Your task to perform on an android device: Open sound settings Image 0: 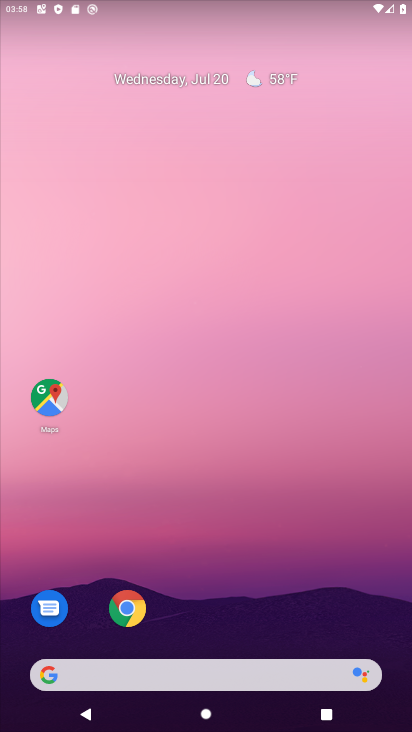
Step 0: drag from (275, 624) to (273, 34)
Your task to perform on an android device: Open sound settings Image 1: 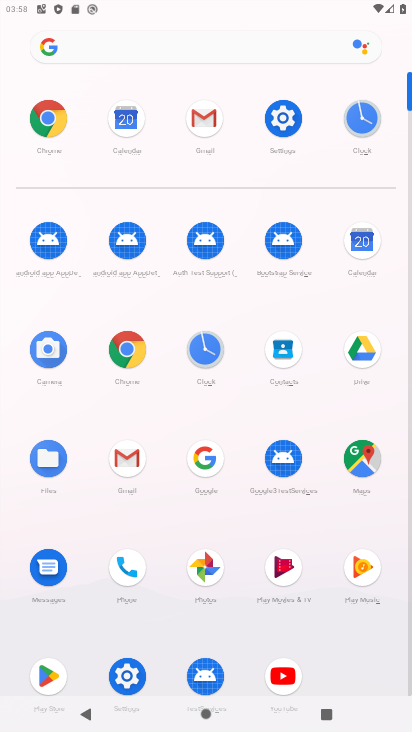
Step 1: click (280, 170)
Your task to perform on an android device: Open sound settings Image 2: 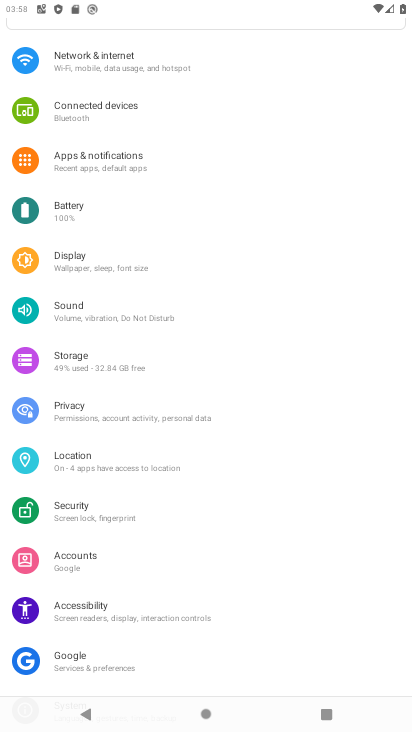
Step 2: click (159, 71)
Your task to perform on an android device: Open sound settings Image 3: 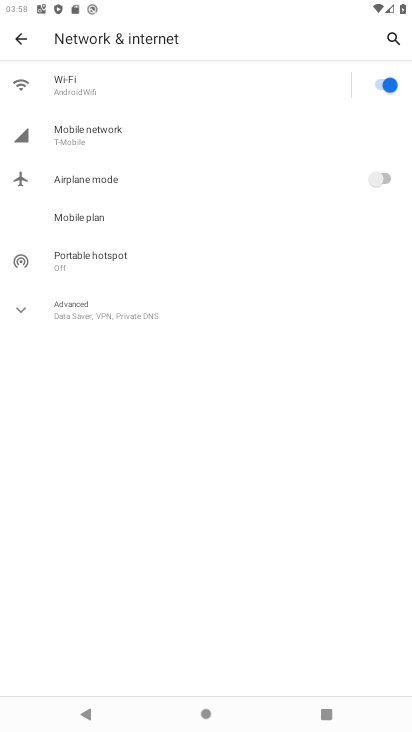
Step 3: task complete